Your task to perform on an android device: Open privacy settings Image 0: 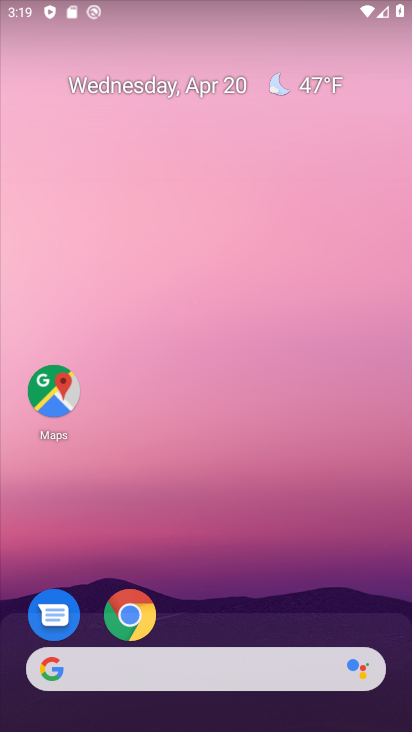
Step 0: drag from (206, 639) to (275, 67)
Your task to perform on an android device: Open privacy settings Image 1: 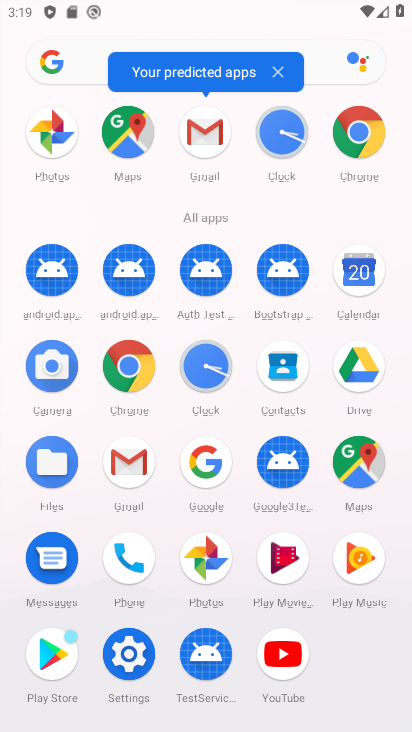
Step 1: click (140, 653)
Your task to perform on an android device: Open privacy settings Image 2: 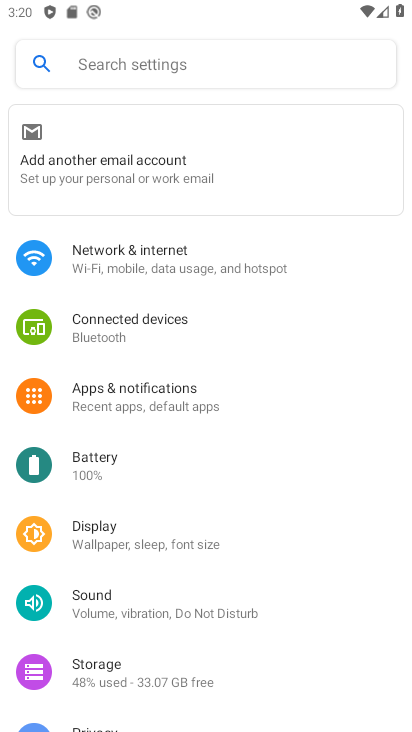
Step 2: drag from (226, 542) to (283, 110)
Your task to perform on an android device: Open privacy settings Image 3: 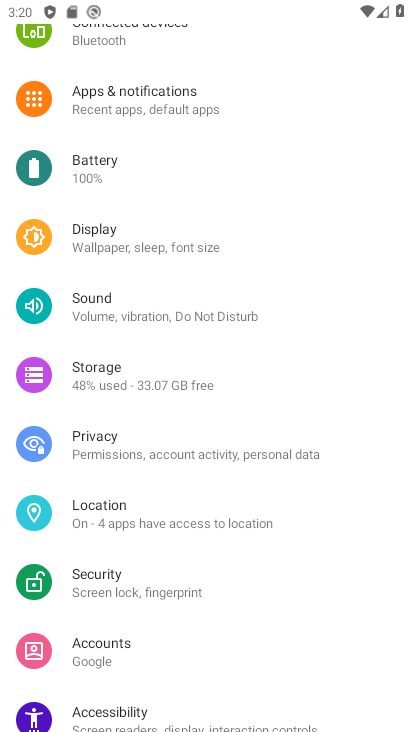
Step 3: click (203, 444)
Your task to perform on an android device: Open privacy settings Image 4: 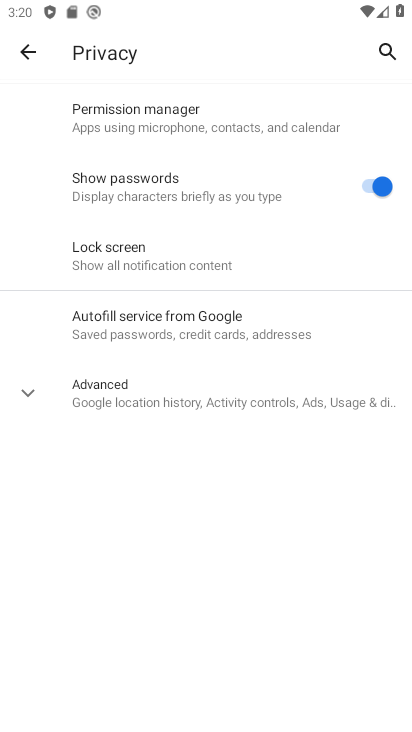
Step 4: task complete